Your task to perform on an android device: turn on improve location accuracy Image 0: 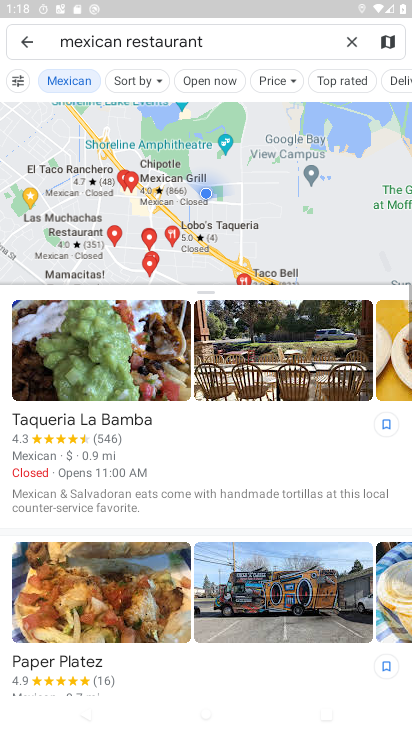
Step 0: press home button
Your task to perform on an android device: turn on improve location accuracy Image 1: 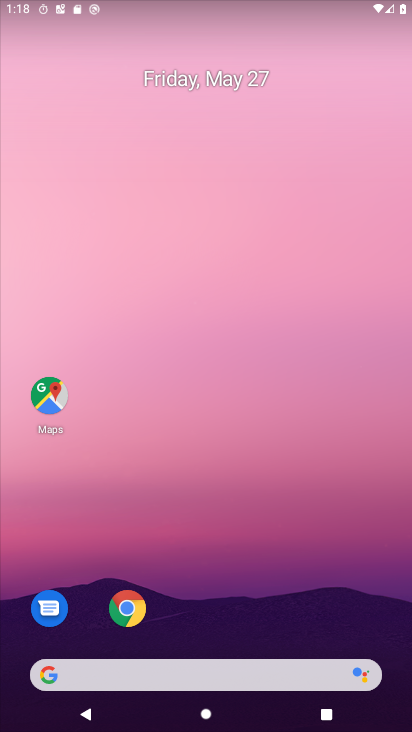
Step 1: drag from (389, 703) to (354, 203)
Your task to perform on an android device: turn on improve location accuracy Image 2: 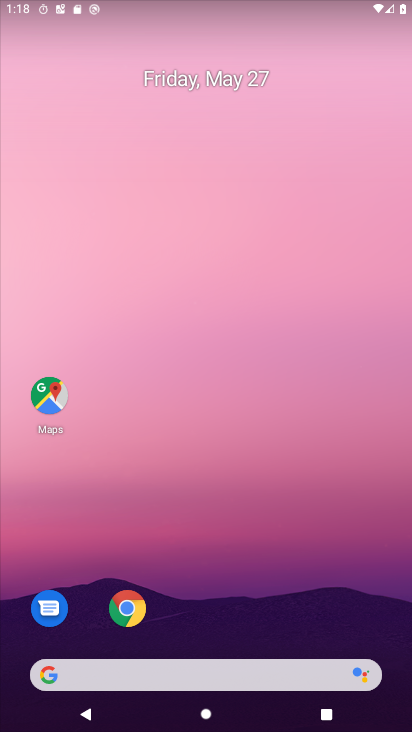
Step 2: drag from (389, 614) to (357, 101)
Your task to perform on an android device: turn on improve location accuracy Image 3: 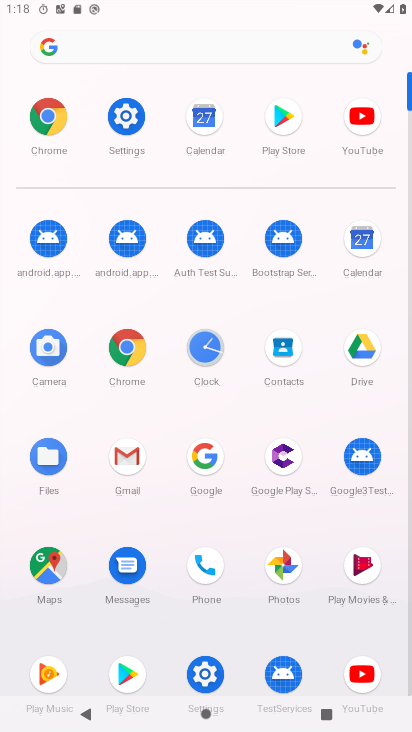
Step 3: click (131, 116)
Your task to perform on an android device: turn on improve location accuracy Image 4: 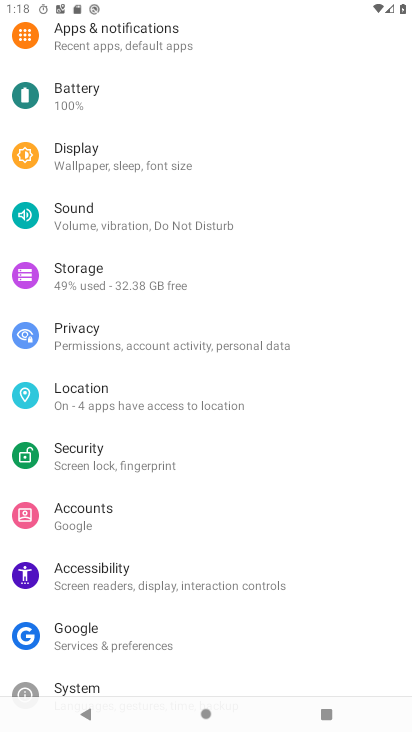
Step 4: click (73, 392)
Your task to perform on an android device: turn on improve location accuracy Image 5: 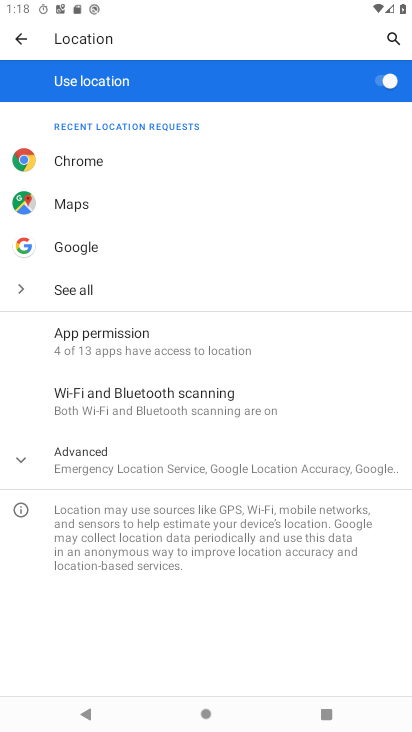
Step 5: click (16, 463)
Your task to perform on an android device: turn on improve location accuracy Image 6: 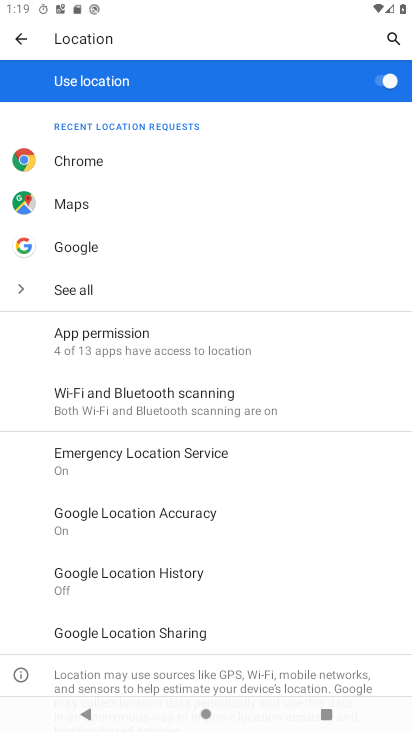
Step 6: task complete